Your task to perform on an android device: turn notification dots on Image 0: 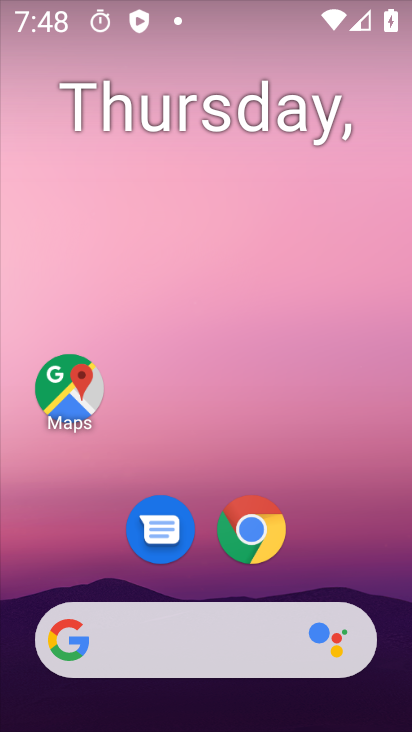
Step 0: drag from (388, 697) to (358, 27)
Your task to perform on an android device: turn notification dots on Image 1: 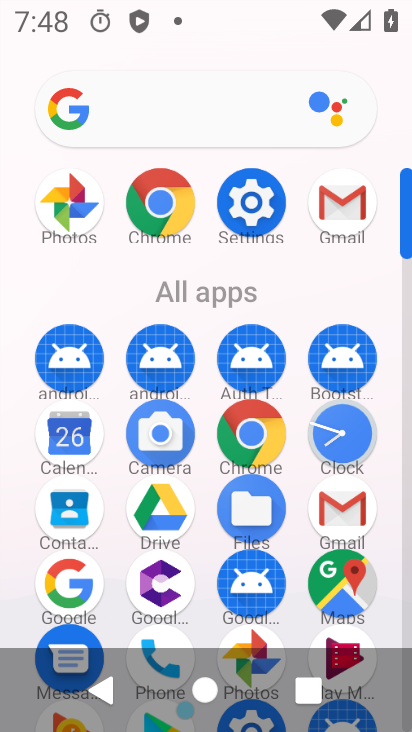
Step 1: click (251, 191)
Your task to perform on an android device: turn notification dots on Image 2: 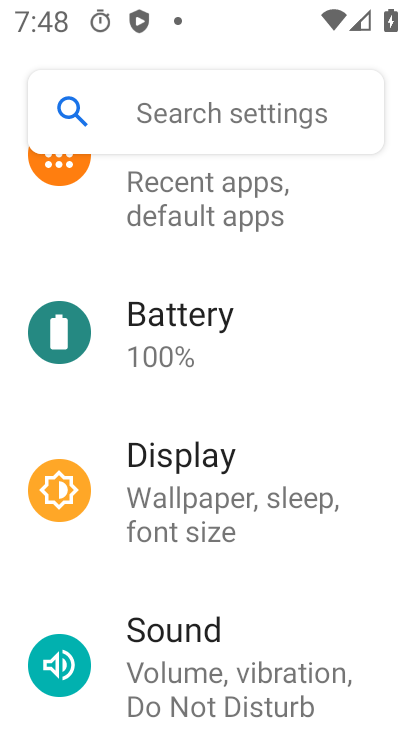
Step 2: drag from (328, 201) to (330, 718)
Your task to perform on an android device: turn notification dots on Image 3: 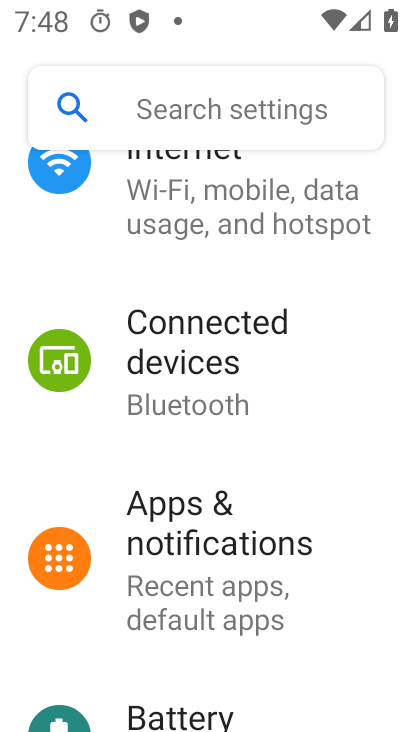
Step 3: drag from (364, 289) to (329, 728)
Your task to perform on an android device: turn notification dots on Image 4: 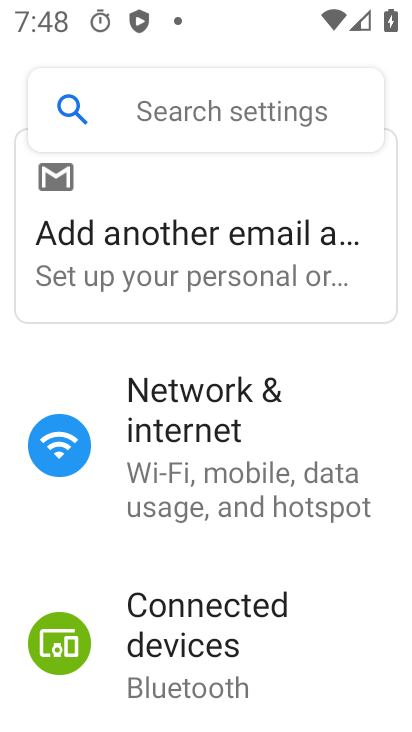
Step 4: drag from (316, 696) to (317, 432)
Your task to perform on an android device: turn notification dots on Image 5: 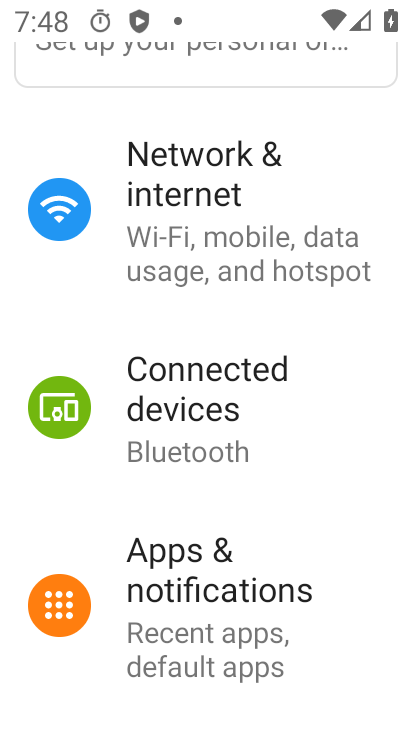
Step 5: click (183, 576)
Your task to perform on an android device: turn notification dots on Image 6: 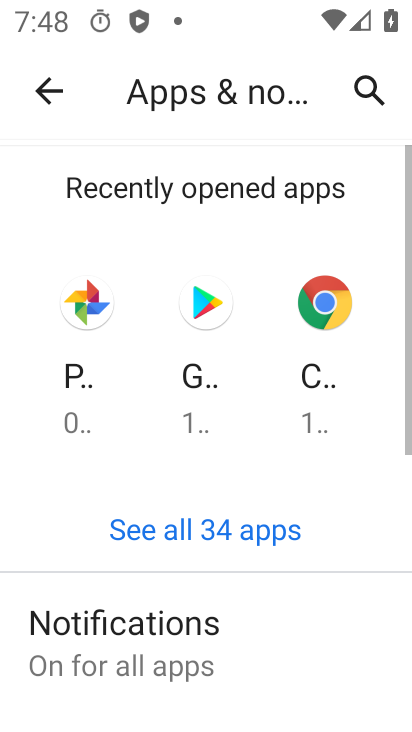
Step 6: click (113, 640)
Your task to perform on an android device: turn notification dots on Image 7: 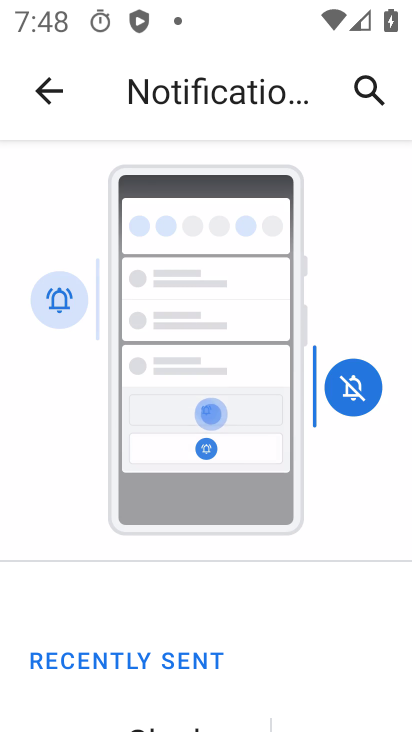
Step 7: drag from (294, 717) to (341, 21)
Your task to perform on an android device: turn notification dots on Image 8: 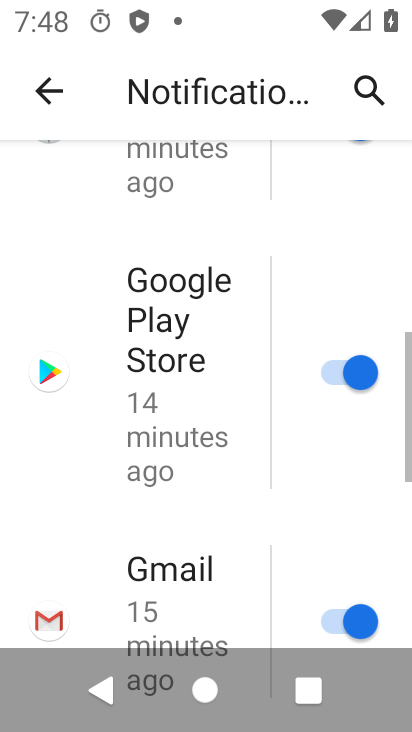
Step 8: drag from (252, 619) to (265, 70)
Your task to perform on an android device: turn notification dots on Image 9: 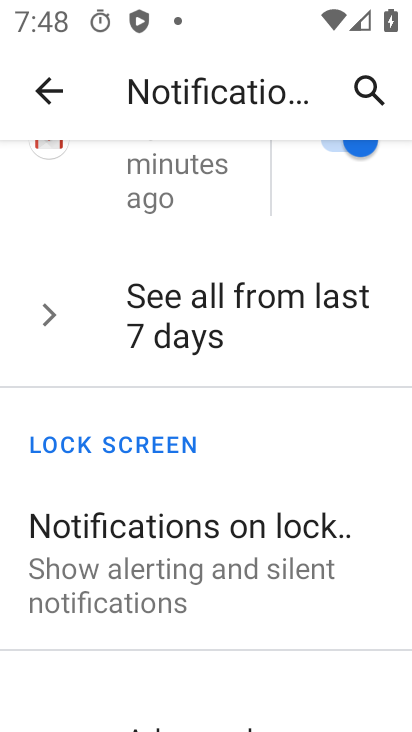
Step 9: click (130, 526)
Your task to perform on an android device: turn notification dots on Image 10: 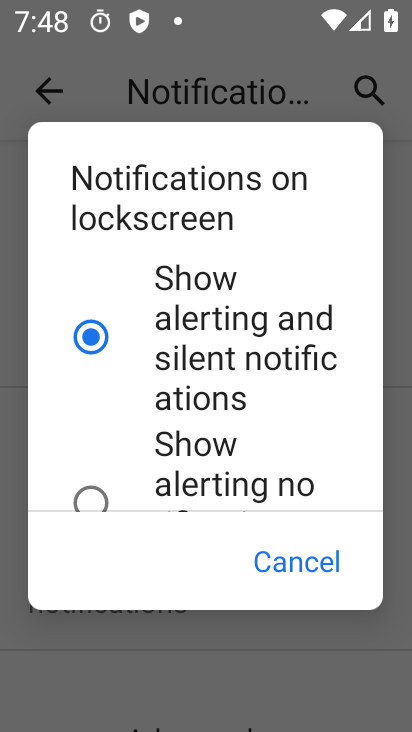
Step 10: click (313, 566)
Your task to perform on an android device: turn notification dots on Image 11: 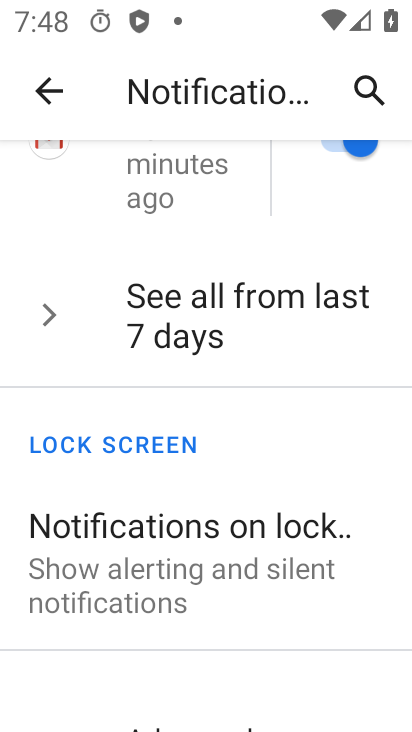
Step 11: drag from (283, 704) to (278, 185)
Your task to perform on an android device: turn notification dots on Image 12: 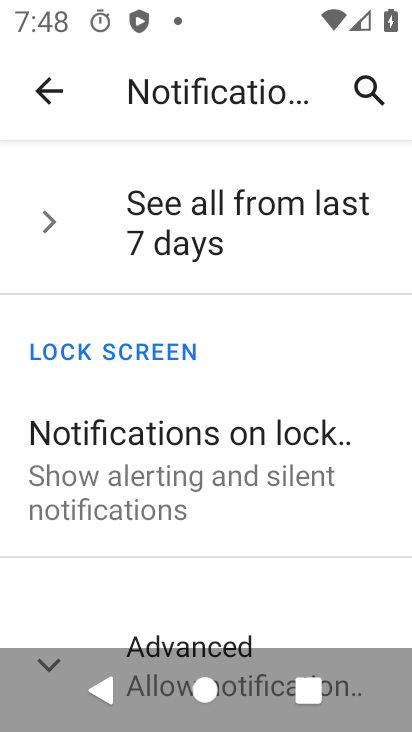
Step 12: click (50, 661)
Your task to perform on an android device: turn notification dots on Image 13: 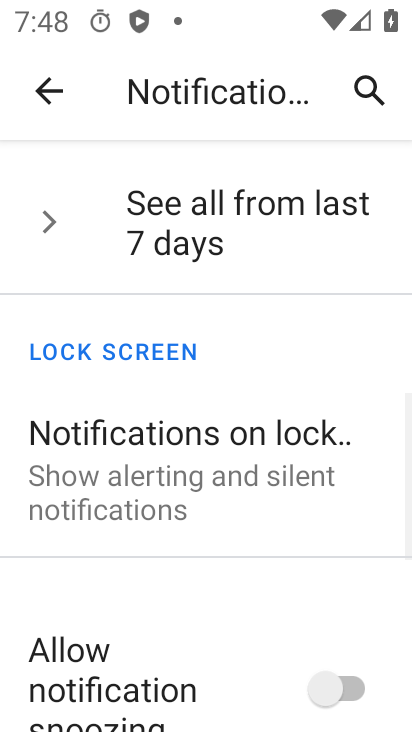
Step 13: task complete